Your task to perform on an android device: open a new tab in the chrome app Image 0: 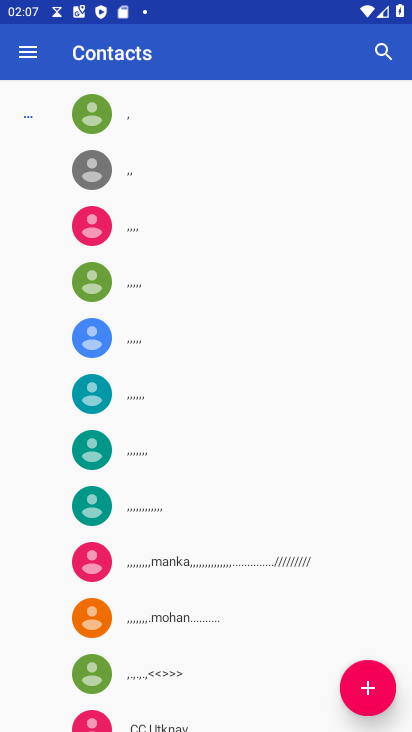
Step 0: press home button
Your task to perform on an android device: open a new tab in the chrome app Image 1: 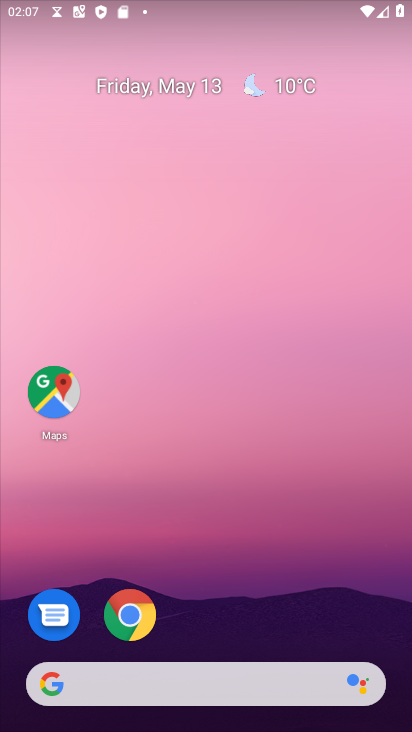
Step 1: click (113, 623)
Your task to perform on an android device: open a new tab in the chrome app Image 2: 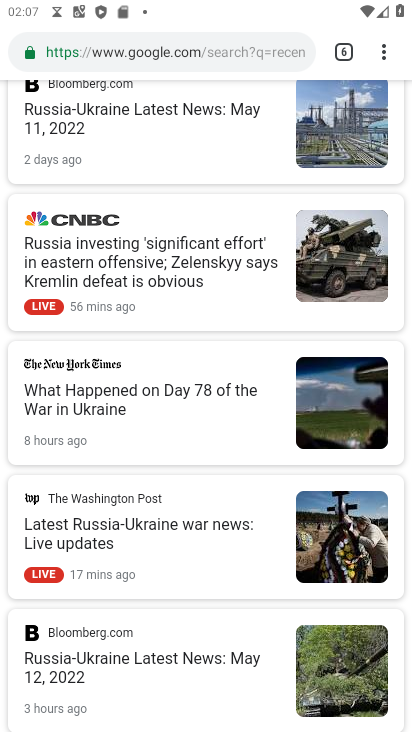
Step 2: click (386, 49)
Your task to perform on an android device: open a new tab in the chrome app Image 3: 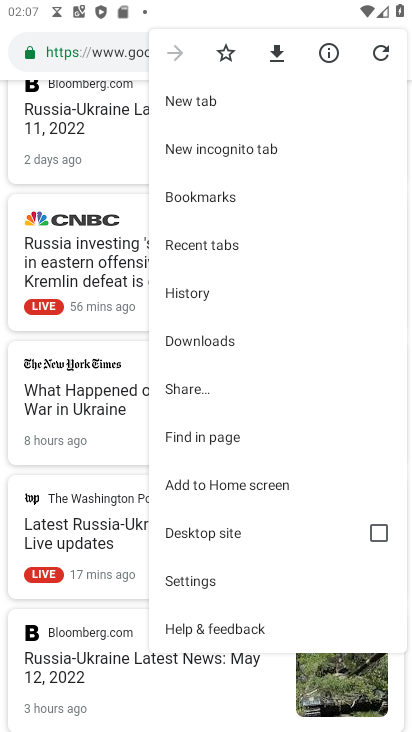
Step 3: click (173, 97)
Your task to perform on an android device: open a new tab in the chrome app Image 4: 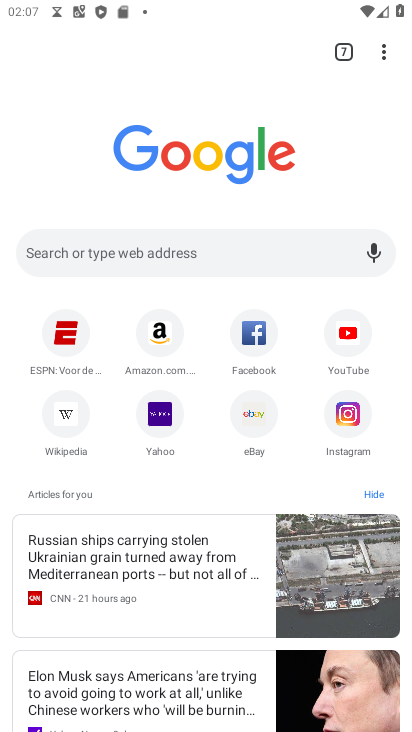
Step 4: task complete